Your task to perform on an android device: empty trash in google photos Image 0: 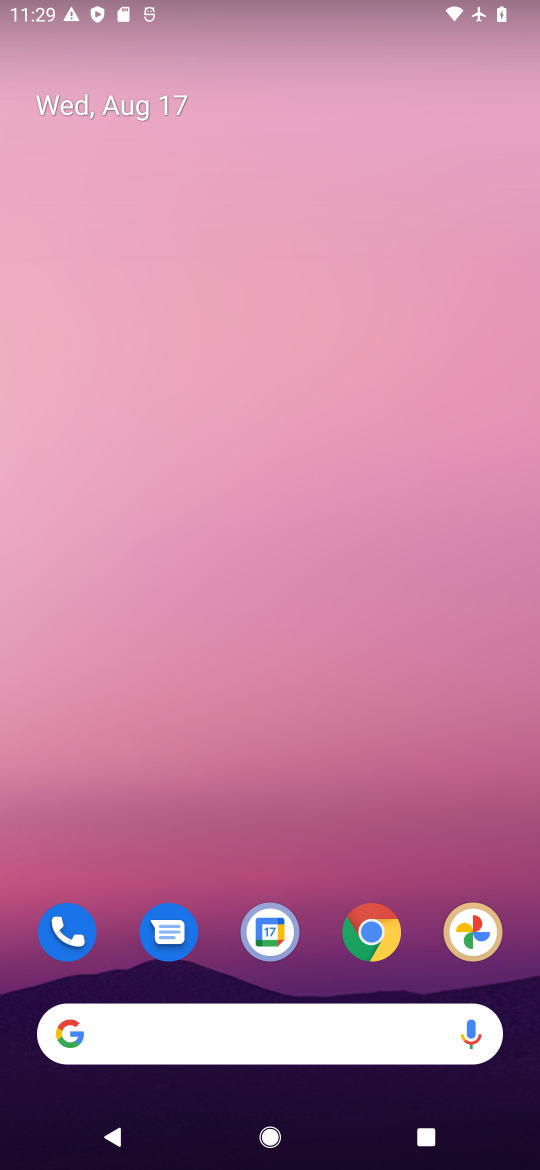
Step 0: drag from (257, 855) to (239, 674)
Your task to perform on an android device: empty trash in google photos Image 1: 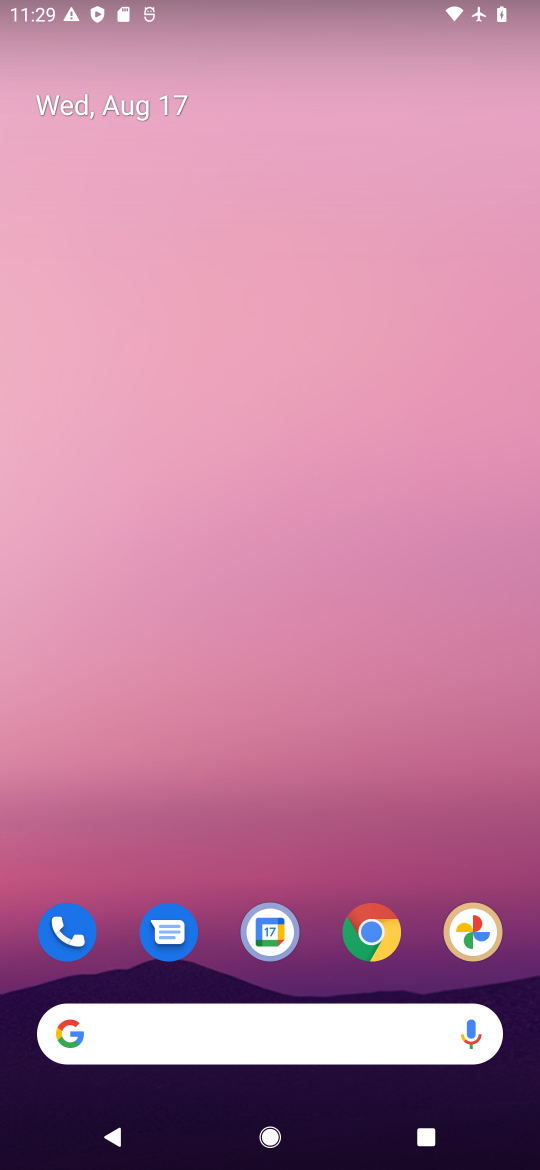
Step 1: click (474, 934)
Your task to perform on an android device: empty trash in google photos Image 2: 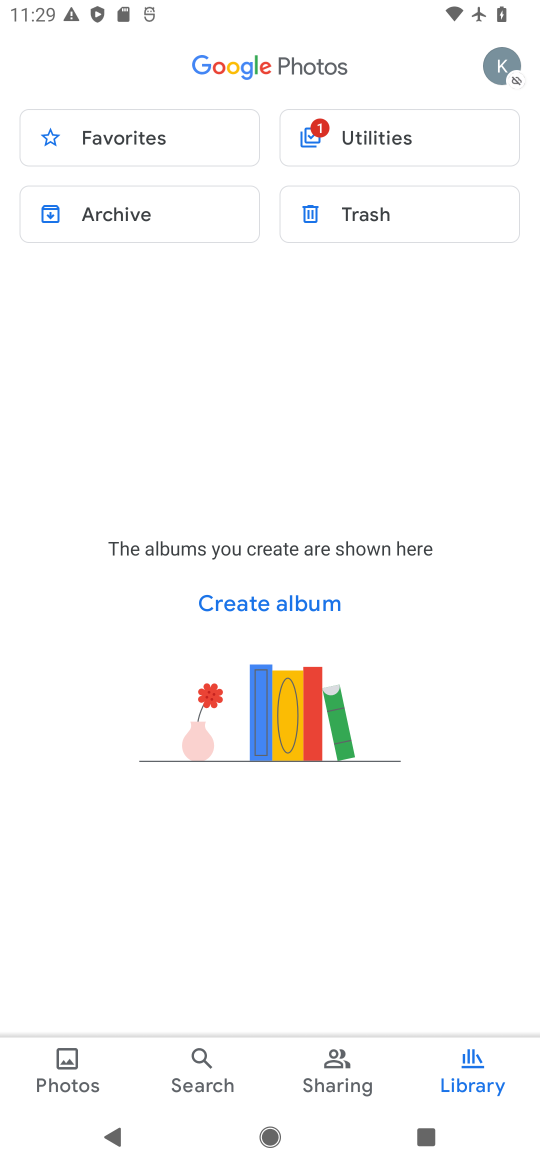
Step 2: click (342, 218)
Your task to perform on an android device: empty trash in google photos Image 3: 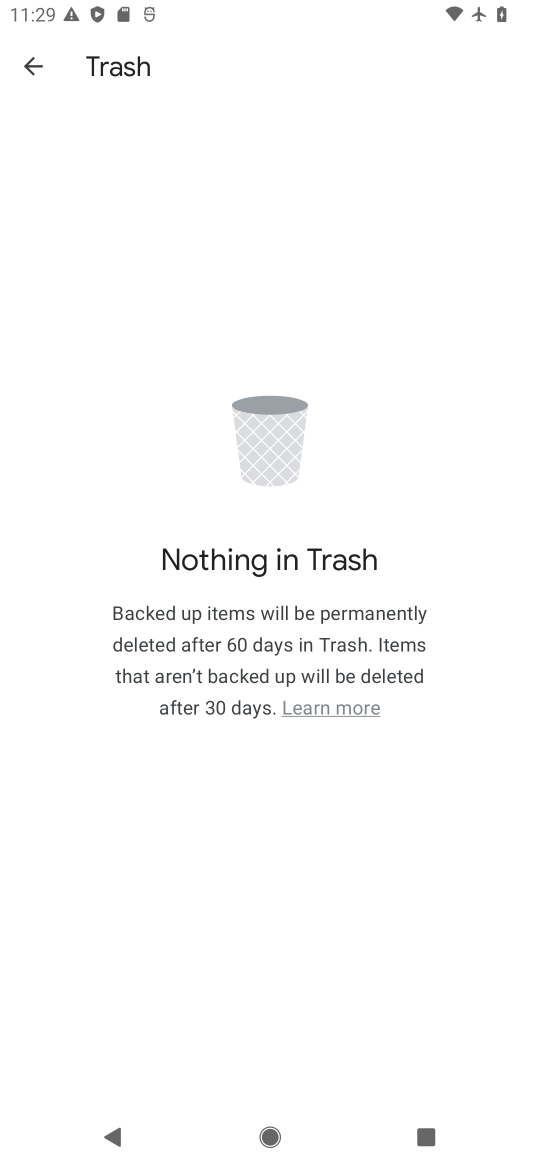
Step 3: task complete